Your task to perform on an android device: toggle wifi Image 0: 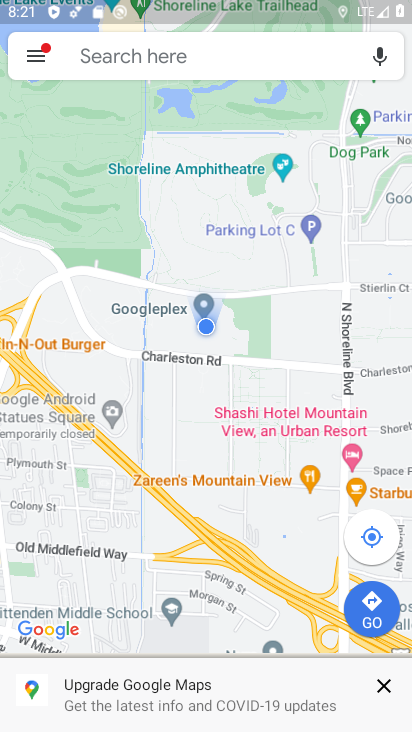
Step 0: press back button
Your task to perform on an android device: toggle wifi Image 1: 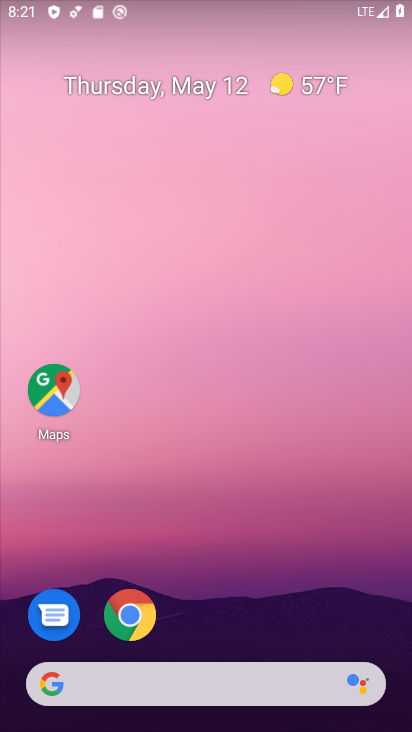
Step 1: drag from (252, 521) to (230, 21)
Your task to perform on an android device: toggle wifi Image 2: 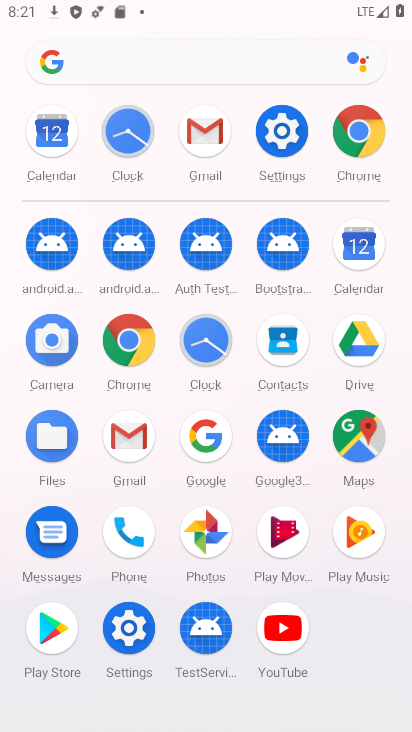
Step 2: click (128, 624)
Your task to perform on an android device: toggle wifi Image 3: 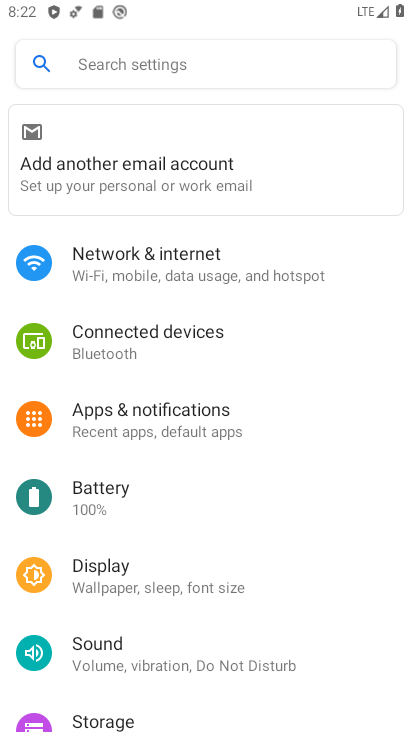
Step 3: click (165, 249)
Your task to perform on an android device: toggle wifi Image 4: 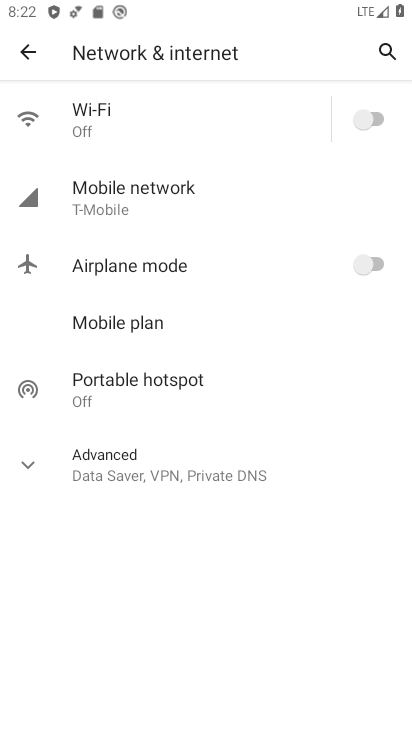
Step 4: click (35, 459)
Your task to perform on an android device: toggle wifi Image 5: 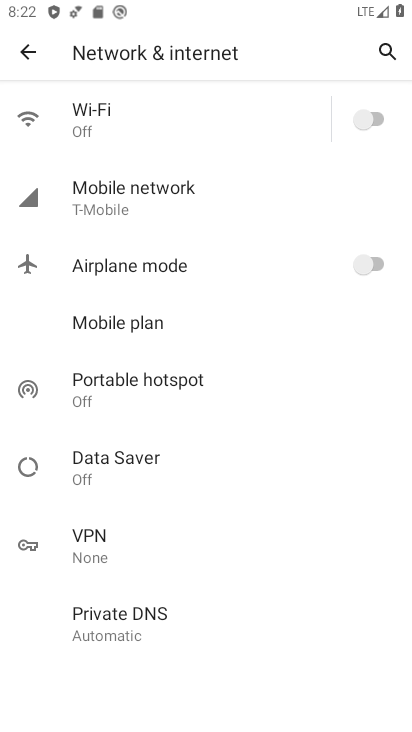
Step 5: click (367, 116)
Your task to perform on an android device: toggle wifi Image 6: 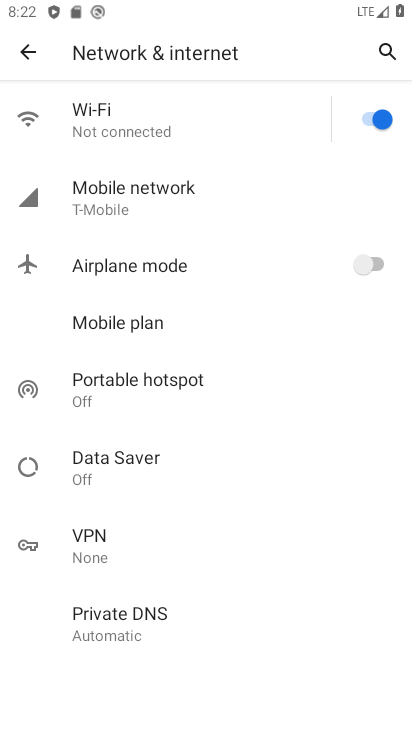
Step 6: task complete